Your task to perform on an android device: delete a single message in the gmail app Image 0: 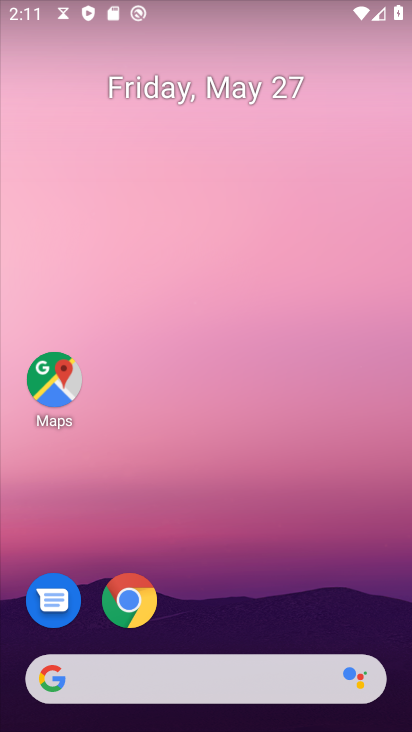
Step 0: drag from (204, 592) to (27, 30)
Your task to perform on an android device: delete a single message in the gmail app Image 1: 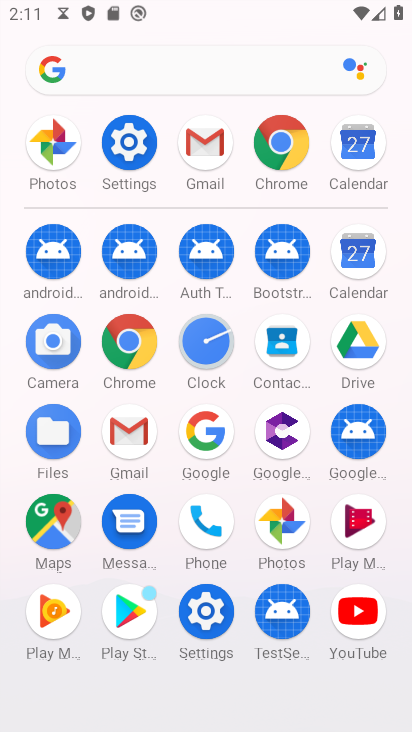
Step 1: drag from (12, 558) to (45, 179)
Your task to perform on an android device: delete a single message in the gmail app Image 2: 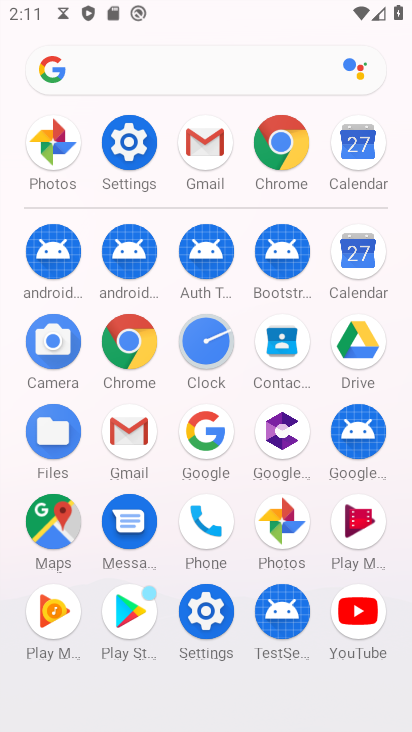
Step 2: click (207, 138)
Your task to perform on an android device: delete a single message in the gmail app Image 3: 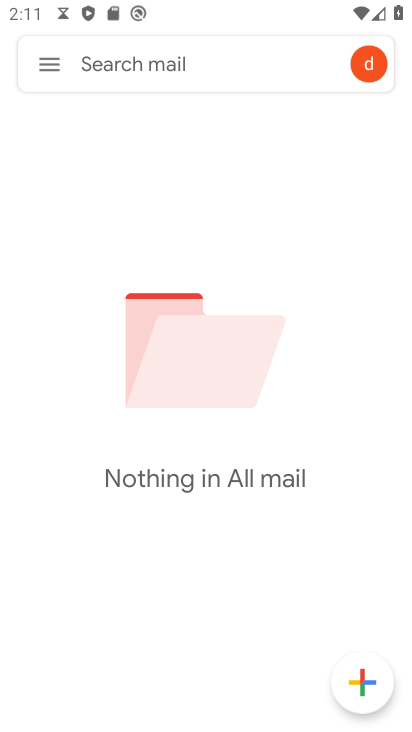
Step 3: click (46, 65)
Your task to perform on an android device: delete a single message in the gmail app Image 4: 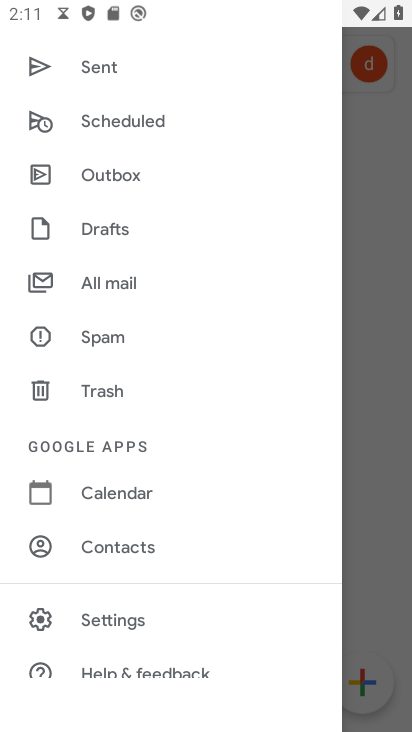
Step 4: click (117, 273)
Your task to perform on an android device: delete a single message in the gmail app Image 5: 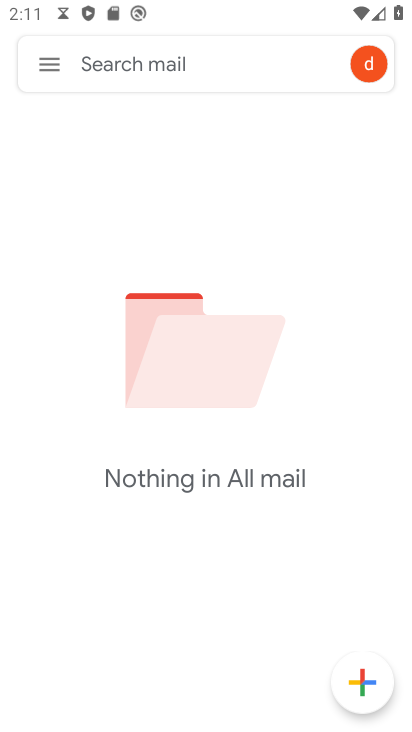
Step 5: click (51, 62)
Your task to perform on an android device: delete a single message in the gmail app Image 6: 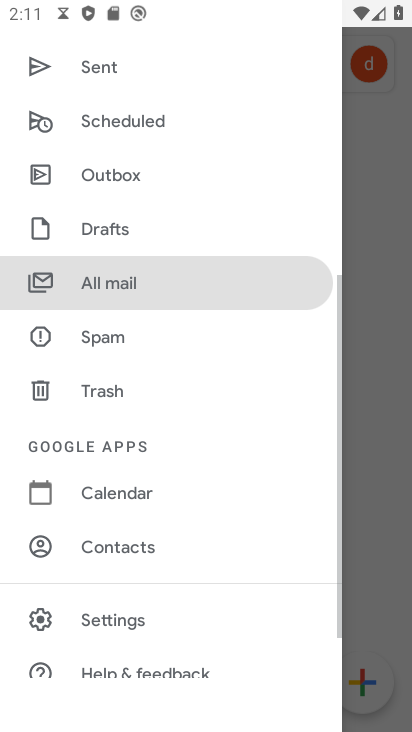
Step 6: drag from (224, 199) to (224, 600)
Your task to perform on an android device: delete a single message in the gmail app Image 7: 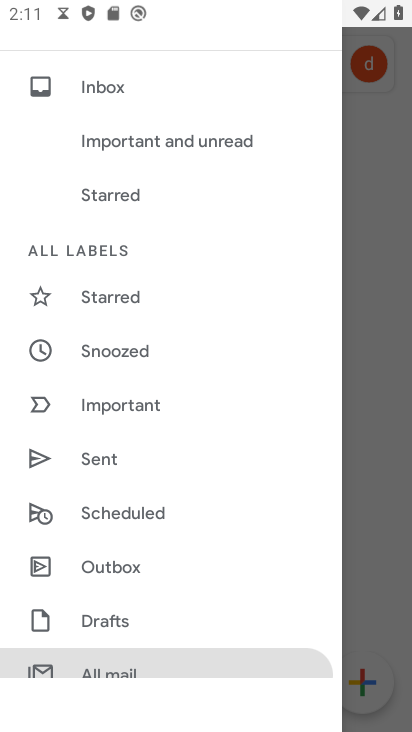
Step 7: click (146, 293)
Your task to perform on an android device: delete a single message in the gmail app Image 8: 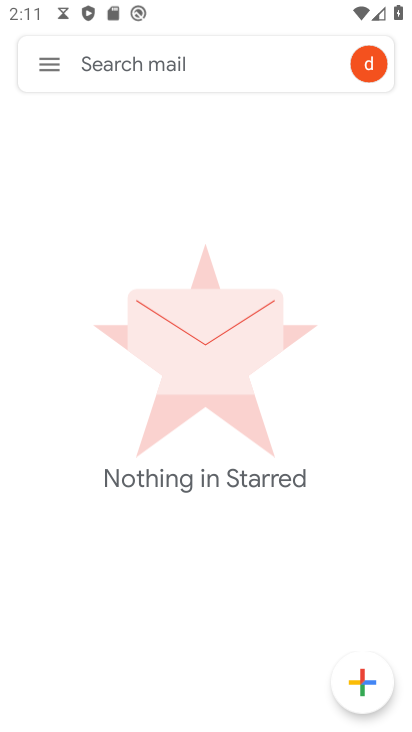
Step 8: click (52, 67)
Your task to perform on an android device: delete a single message in the gmail app Image 9: 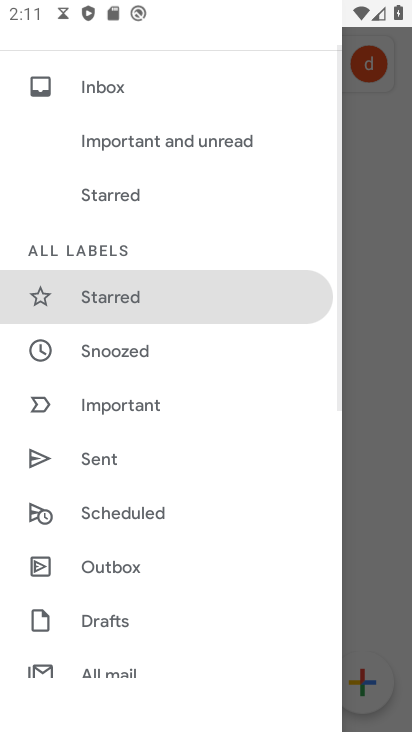
Step 9: drag from (206, 603) to (217, 167)
Your task to perform on an android device: delete a single message in the gmail app Image 10: 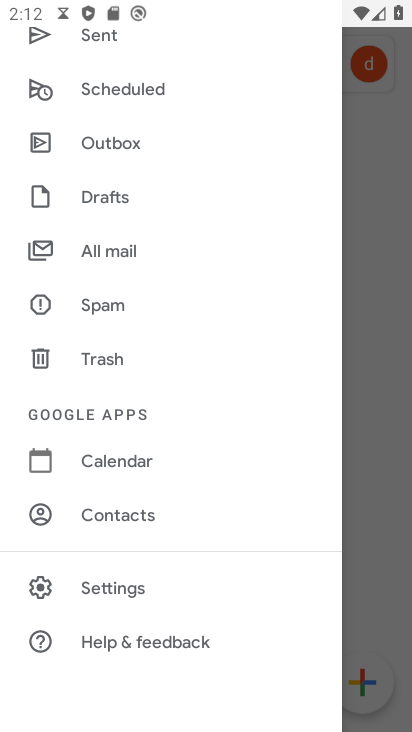
Step 10: click (120, 243)
Your task to perform on an android device: delete a single message in the gmail app Image 11: 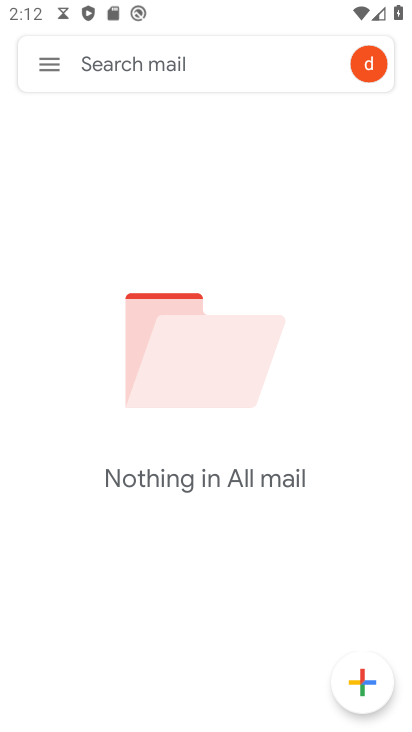
Step 11: click (48, 69)
Your task to perform on an android device: delete a single message in the gmail app Image 12: 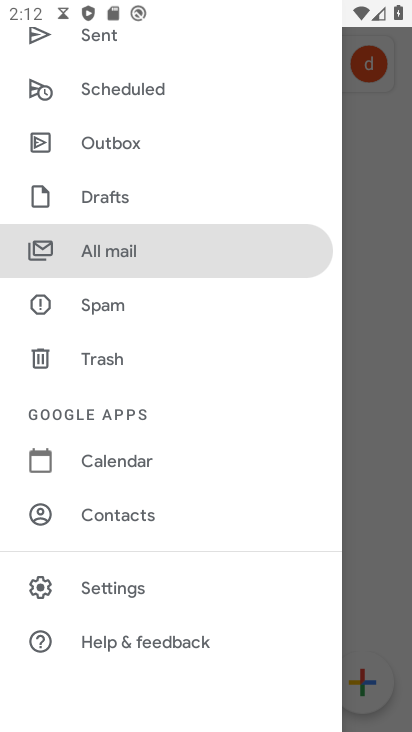
Step 12: drag from (190, 112) to (201, 581)
Your task to perform on an android device: delete a single message in the gmail app Image 13: 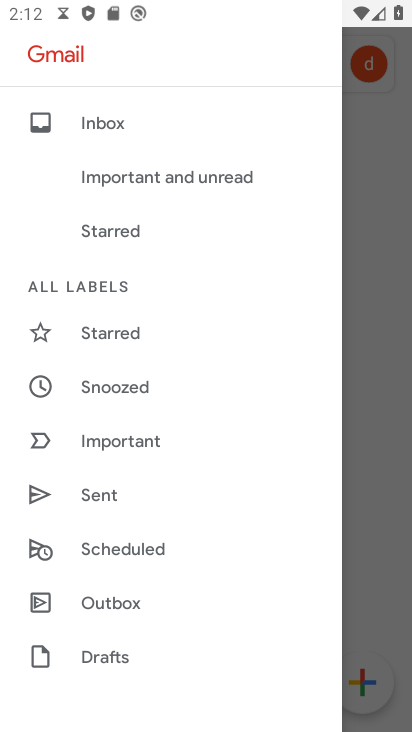
Step 13: click (151, 116)
Your task to perform on an android device: delete a single message in the gmail app Image 14: 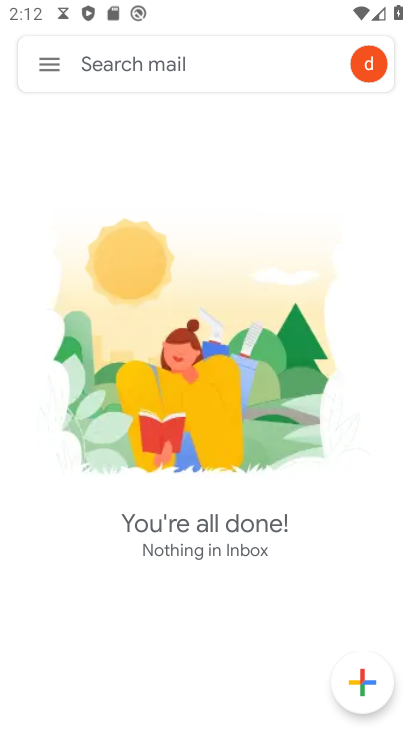
Step 14: click (50, 55)
Your task to perform on an android device: delete a single message in the gmail app Image 15: 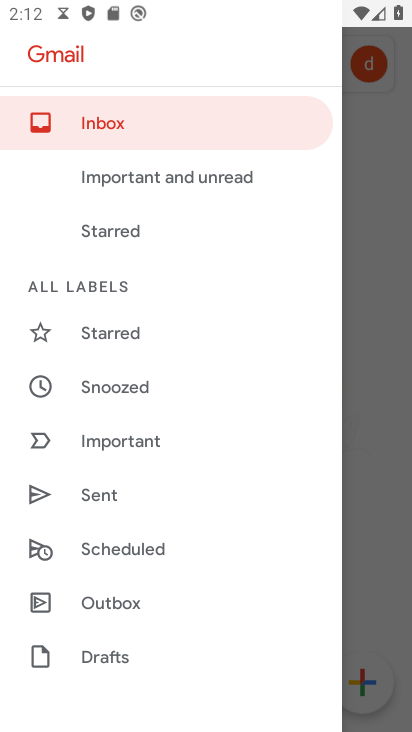
Step 15: drag from (203, 613) to (247, 122)
Your task to perform on an android device: delete a single message in the gmail app Image 16: 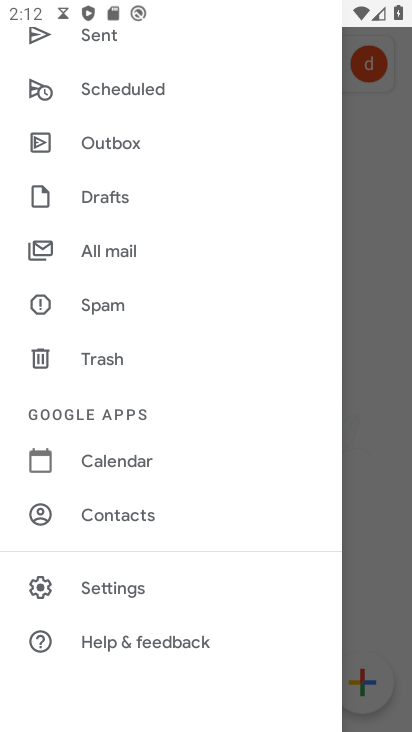
Step 16: click (116, 253)
Your task to perform on an android device: delete a single message in the gmail app Image 17: 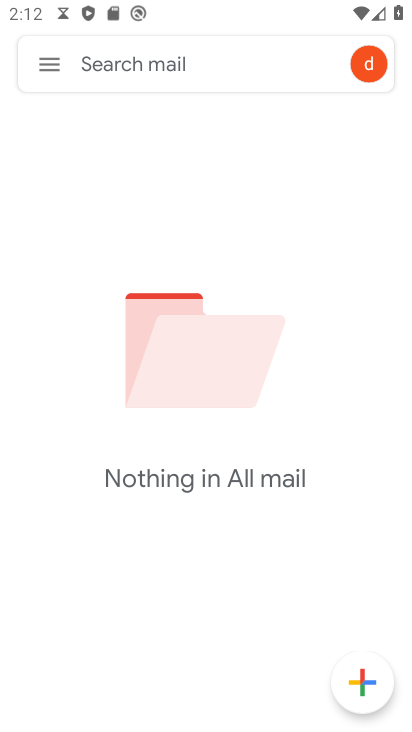
Step 17: task complete